Your task to perform on an android device: Open the phone app and click the voicemail tab. Image 0: 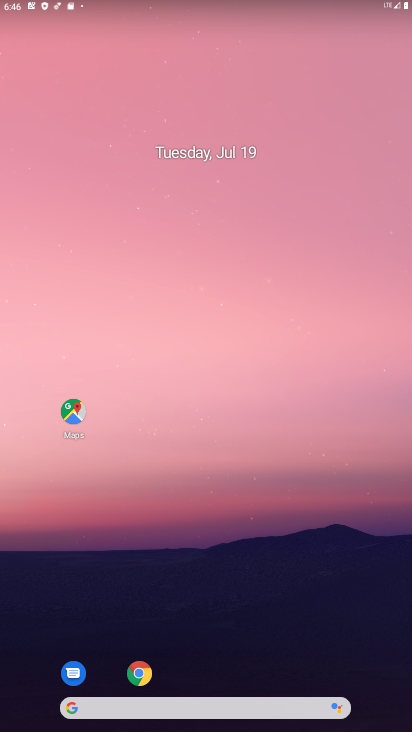
Step 0: drag from (386, 677) to (216, 59)
Your task to perform on an android device: Open the phone app and click the voicemail tab. Image 1: 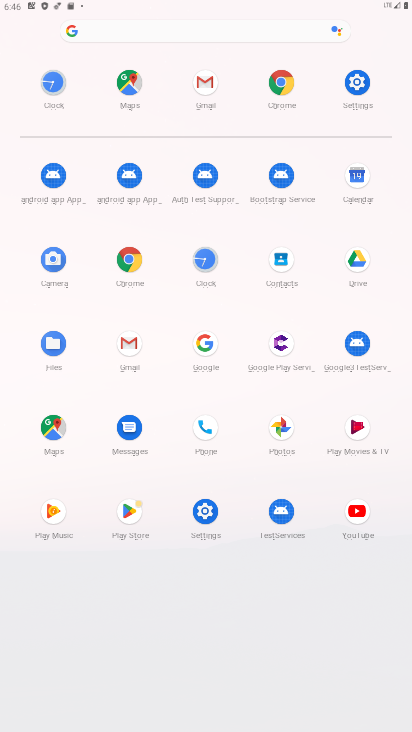
Step 1: click (201, 432)
Your task to perform on an android device: Open the phone app and click the voicemail tab. Image 2: 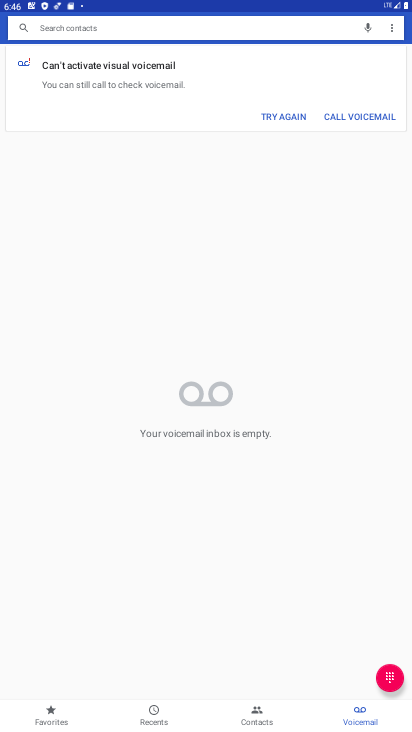
Step 2: task complete